Your task to perform on an android device: open app "HBO Max: Stream TV & Movies" Image 0: 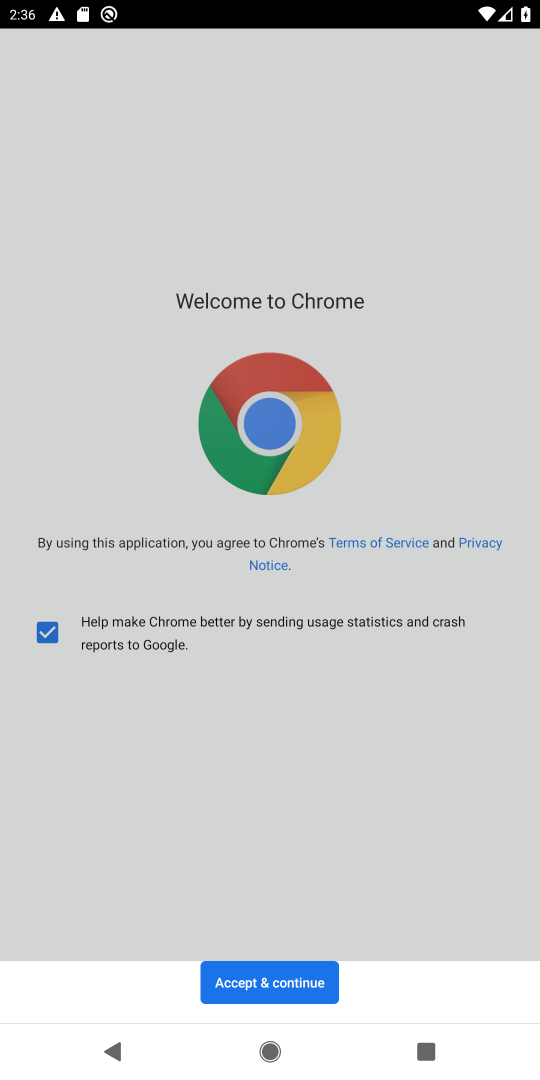
Step 0: press home button
Your task to perform on an android device: open app "HBO Max: Stream TV & Movies" Image 1: 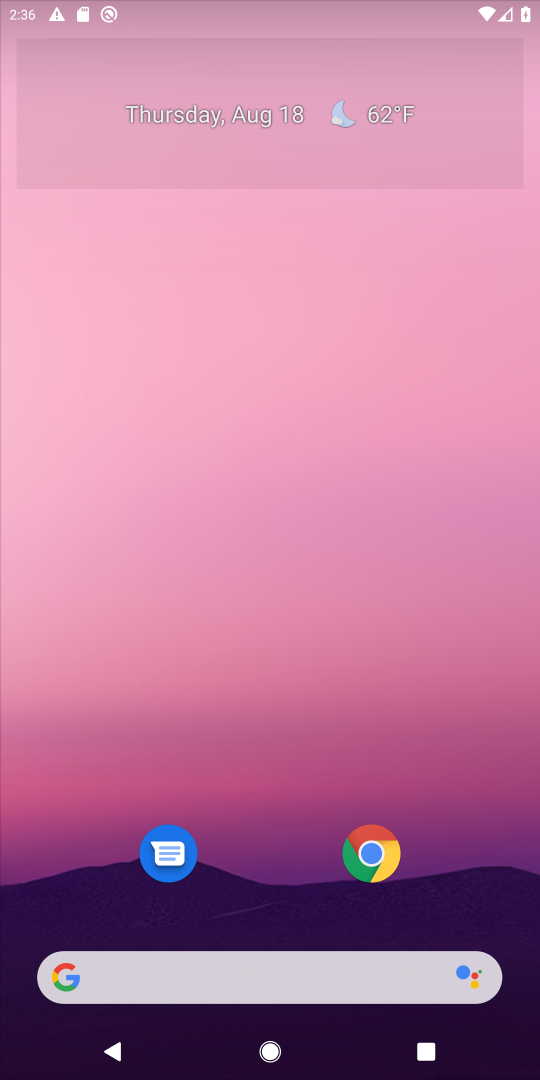
Step 1: drag from (528, 975) to (325, 13)
Your task to perform on an android device: open app "HBO Max: Stream TV & Movies" Image 2: 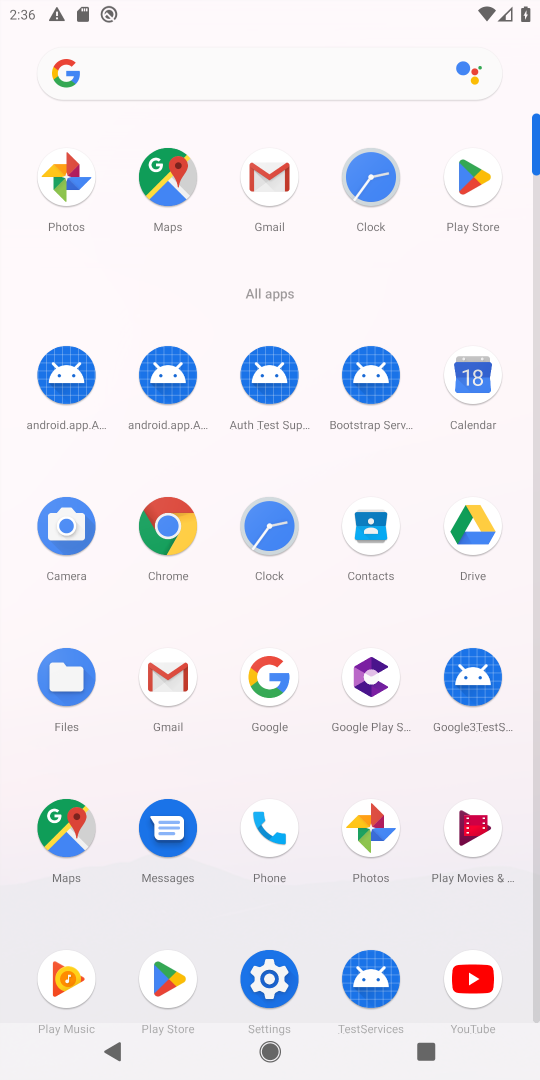
Step 2: click (168, 963)
Your task to perform on an android device: open app "HBO Max: Stream TV & Movies" Image 3: 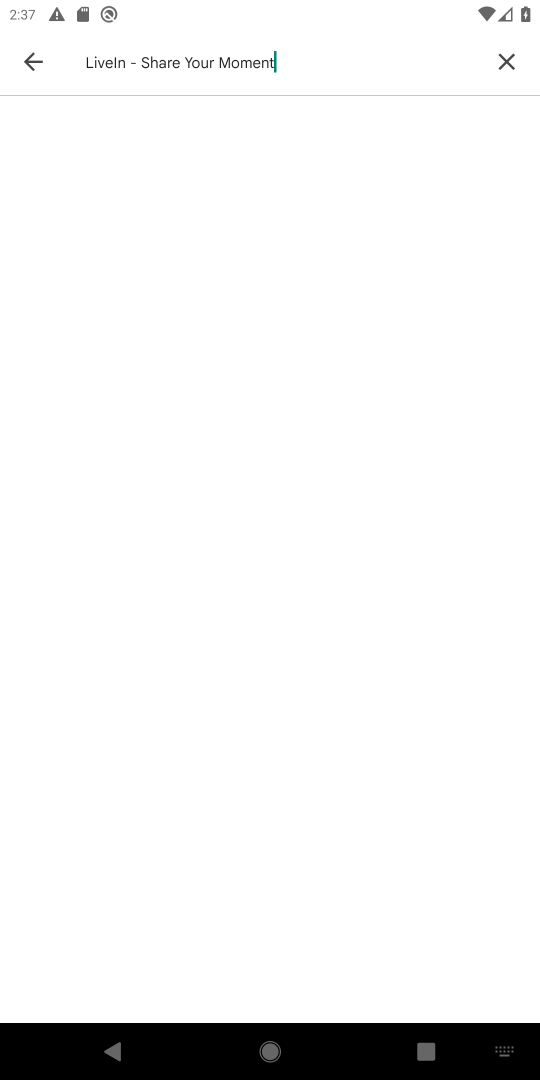
Step 3: click (498, 67)
Your task to perform on an android device: open app "HBO Max: Stream TV & Movies" Image 4: 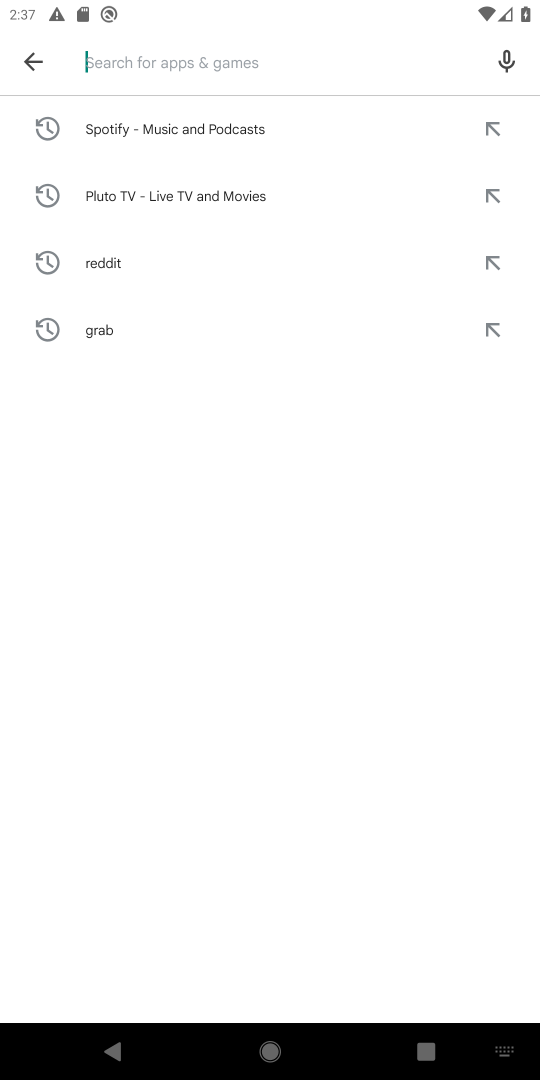
Step 4: type "HBO Max: Stream TV & Movies"
Your task to perform on an android device: open app "HBO Max: Stream TV & Movies" Image 5: 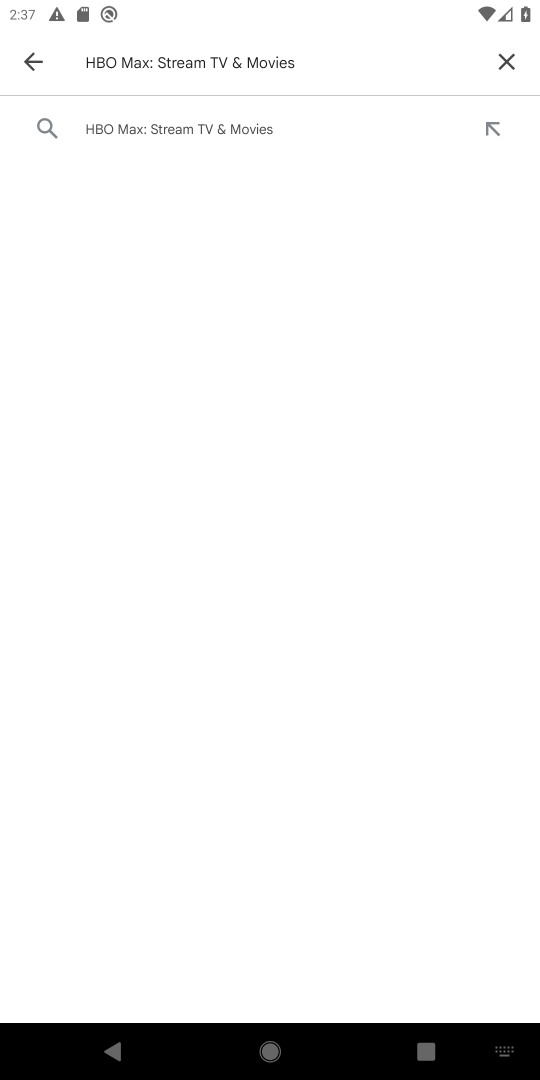
Step 5: click (254, 126)
Your task to perform on an android device: open app "HBO Max: Stream TV & Movies" Image 6: 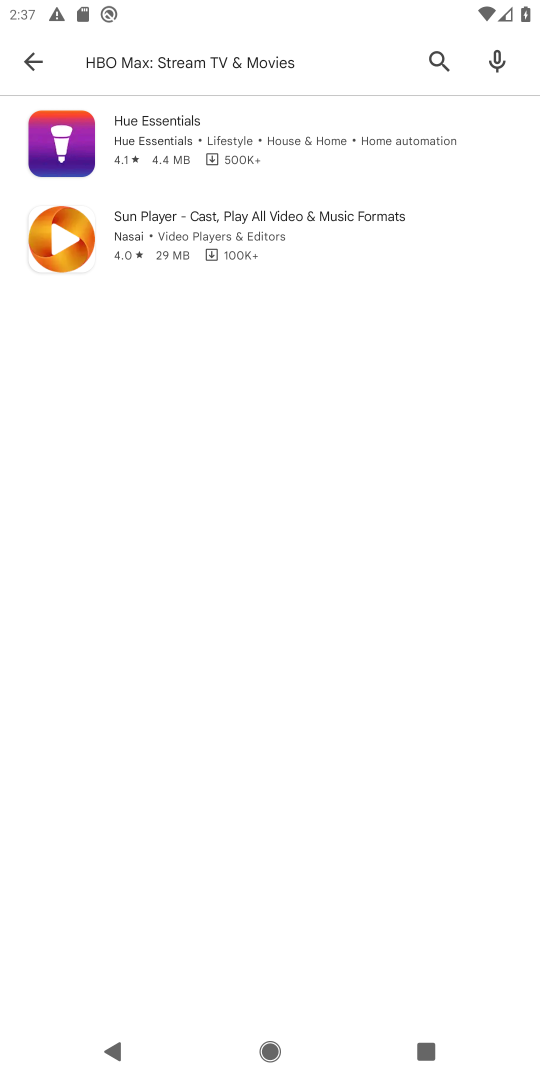
Step 6: task complete